Your task to perform on an android device: create a new album in the google photos Image 0: 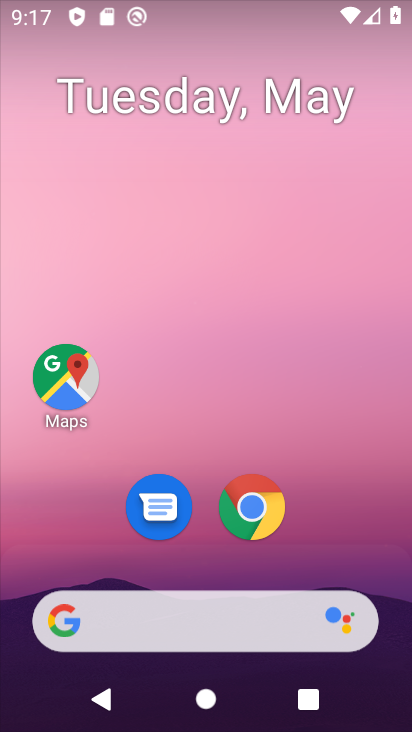
Step 0: drag from (209, 726) to (212, 45)
Your task to perform on an android device: create a new album in the google photos Image 1: 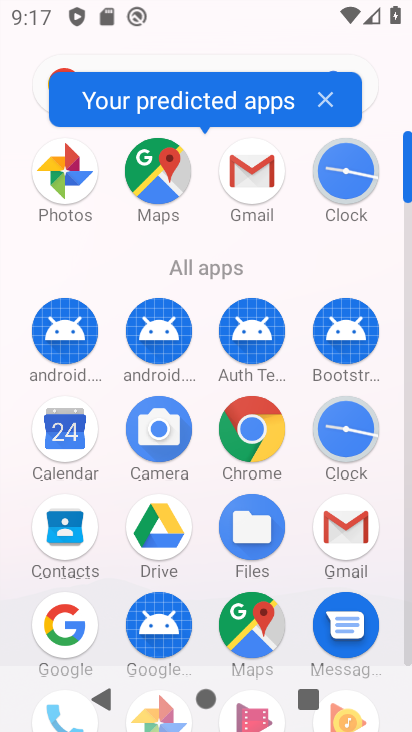
Step 1: click (63, 169)
Your task to perform on an android device: create a new album in the google photos Image 2: 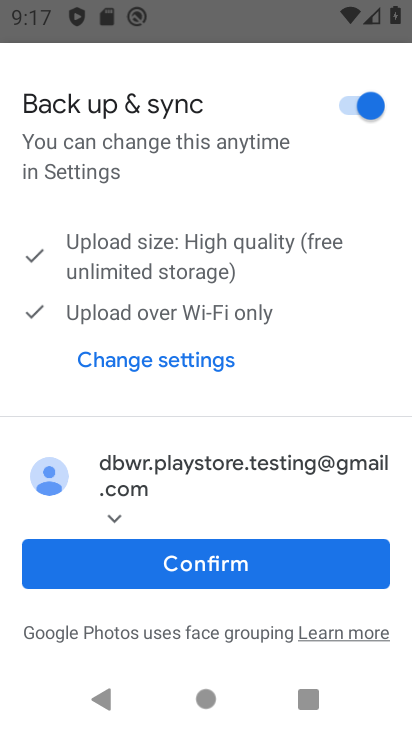
Step 2: click (179, 561)
Your task to perform on an android device: create a new album in the google photos Image 3: 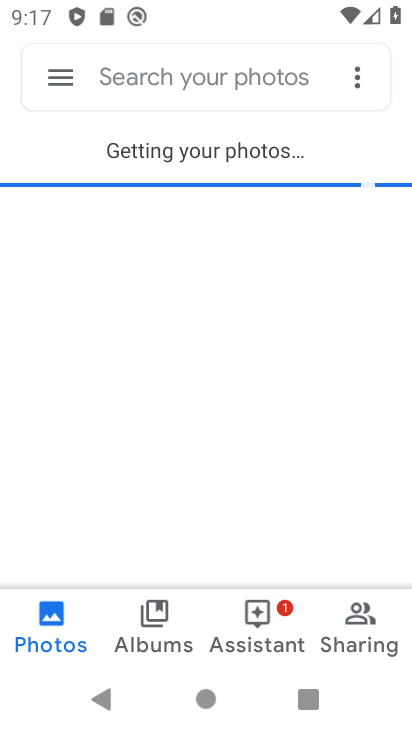
Step 3: click (356, 80)
Your task to perform on an android device: create a new album in the google photos Image 4: 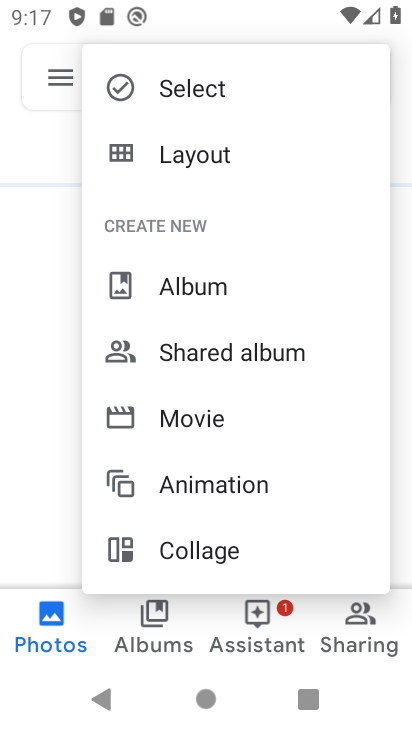
Step 4: click (200, 274)
Your task to perform on an android device: create a new album in the google photos Image 5: 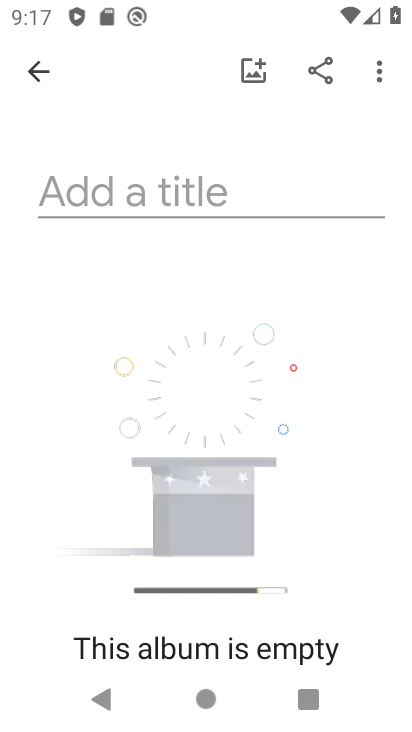
Step 5: click (190, 185)
Your task to perform on an android device: create a new album in the google photos Image 6: 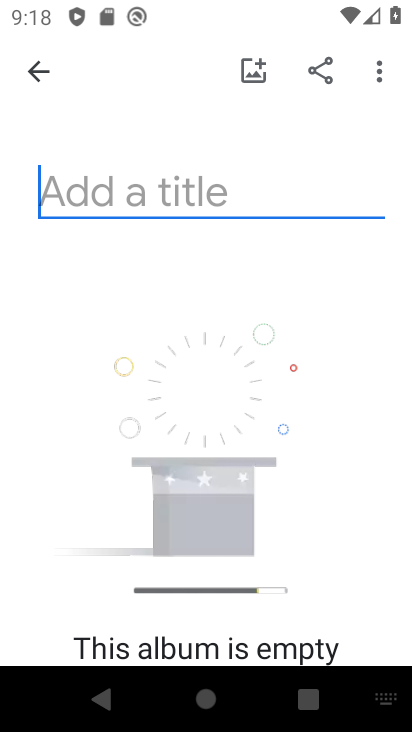
Step 6: type "ramayan"
Your task to perform on an android device: create a new album in the google photos Image 7: 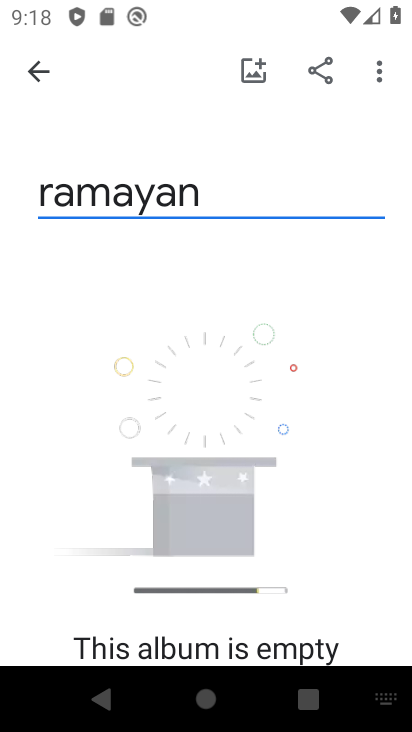
Step 7: click (267, 429)
Your task to perform on an android device: create a new album in the google photos Image 8: 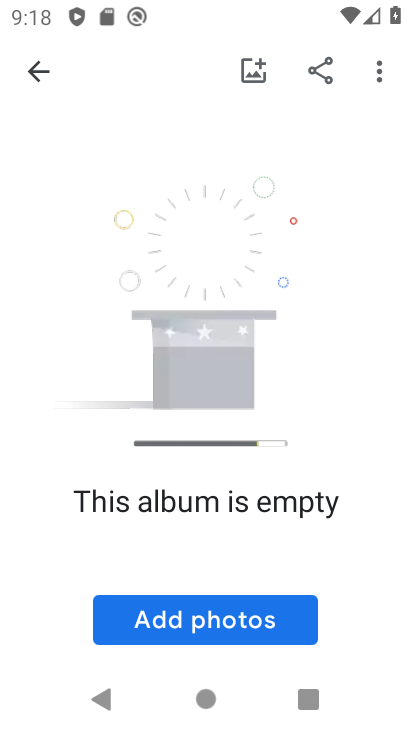
Step 8: click (231, 609)
Your task to perform on an android device: create a new album in the google photos Image 9: 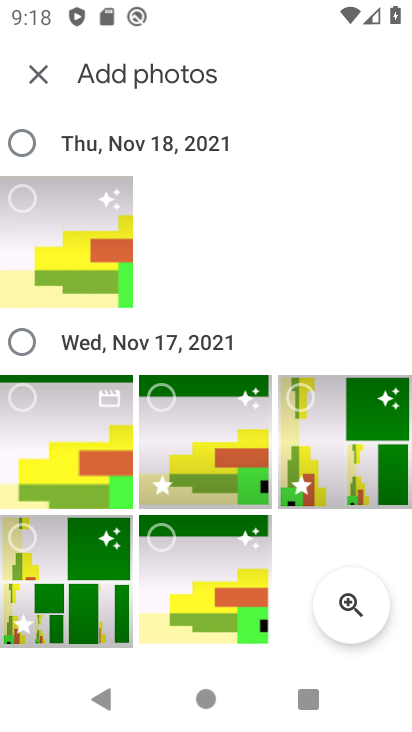
Step 9: click (20, 402)
Your task to perform on an android device: create a new album in the google photos Image 10: 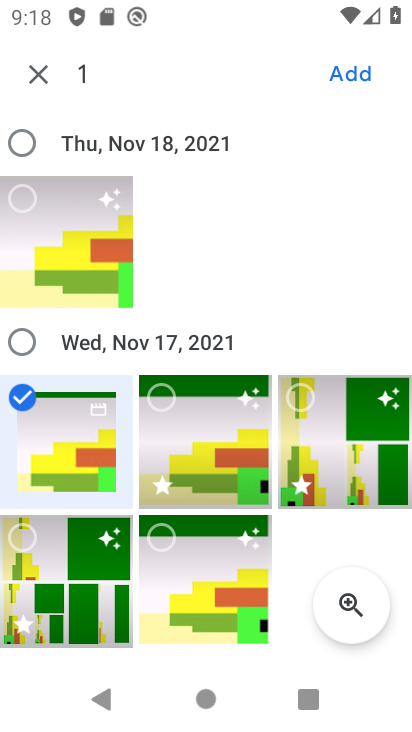
Step 10: click (163, 405)
Your task to perform on an android device: create a new album in the google photos Image 11: 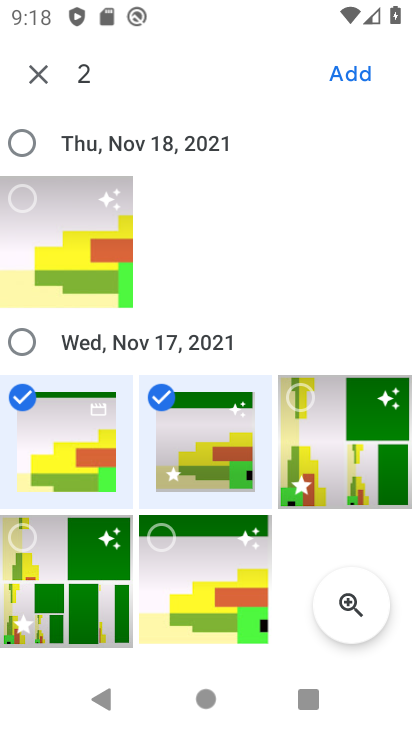
Step 11: click (340, 73)
Your task to perform on an android device: create a new album in the google photos Image 12: 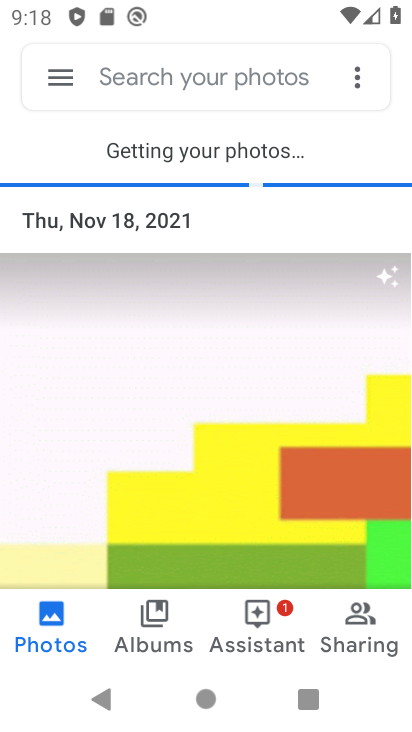
Step 12: task complete